Your task to perform on an android device: Toggle the flashlight Image 0: 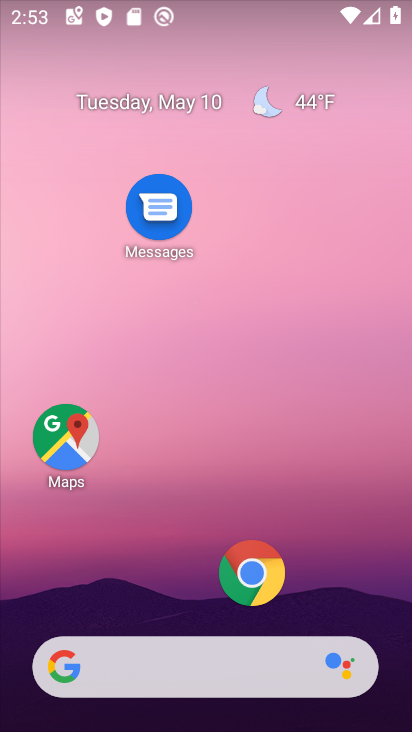
Step 0: drag from (180, 585) to (229, 185)
Your task to perform on an android device: Toggle the flashlight Image 1: 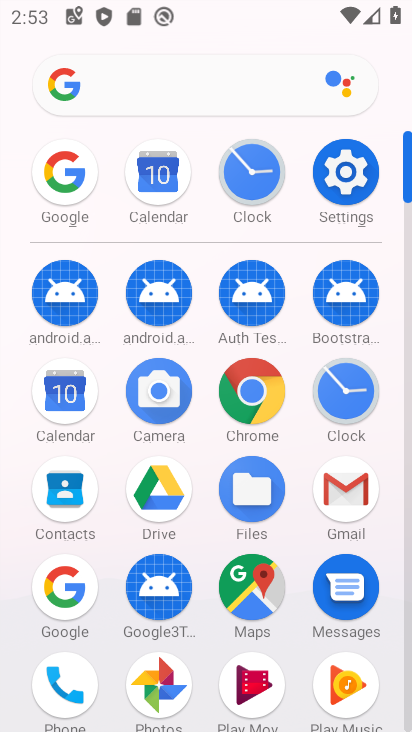
Step 1: click (319, 187)
Your task to perform on an android device: Toggle the flashlight Image 2: 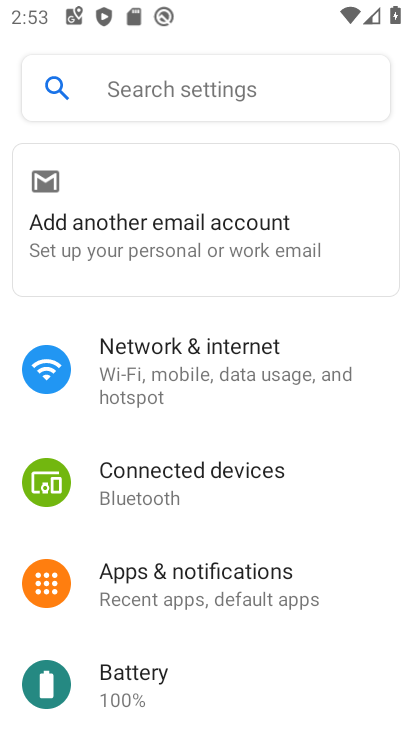
Step 2: drag from (212, 557) to (242, 308)
Your task to perform on an android device: Toggle the flashlight Image 3: 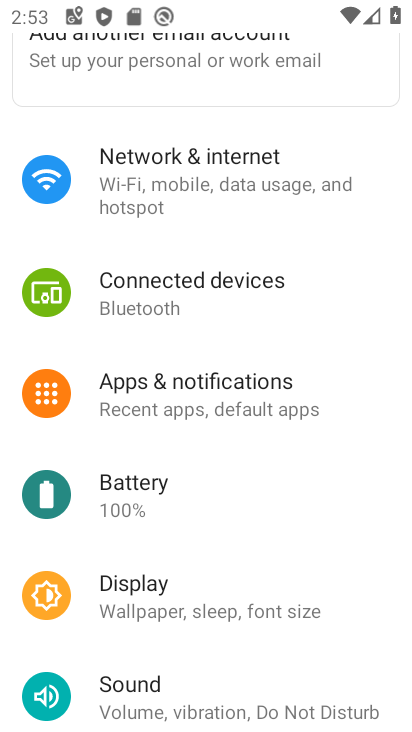
Step 3: click (185, 626)
Your task to perform on an android device: Toggle the flashlight Image 4: 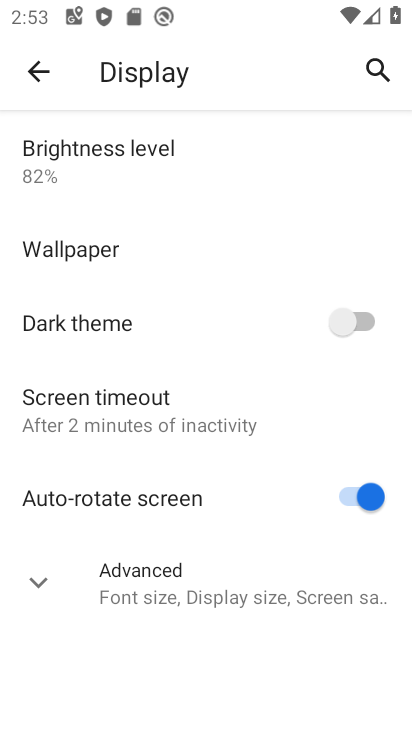
Step 4: task complete